Your task to perform on an android device: change alarm snooze length Image 0: 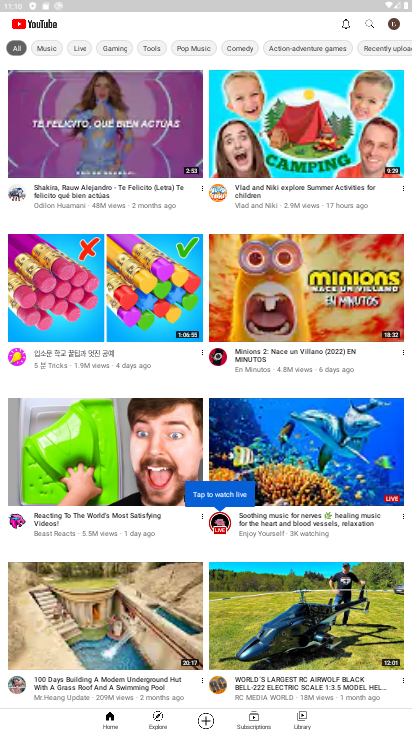
Step 0: press home button
Your task to perform on an android device: change alarm snooze length Image 1: 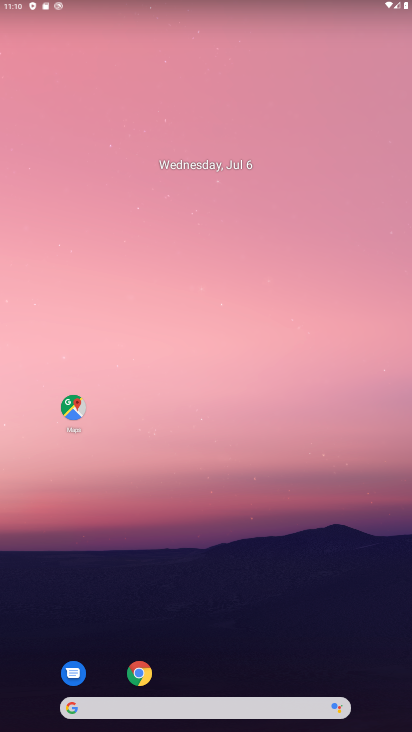
Step 1: drag from (302, 656) to (211, 457)
Your task to perform on an android device: change alarm snooze length Image 2: 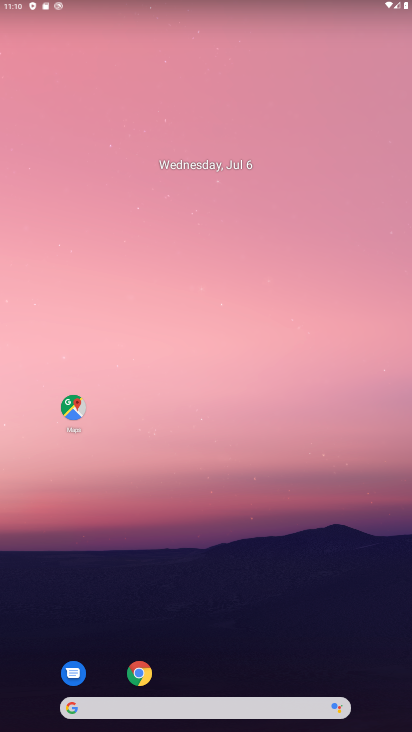
Step 2: drag from (274, 584) to (254, 321)
Your task to perform on an android device: change alarm snooze length Image 3: 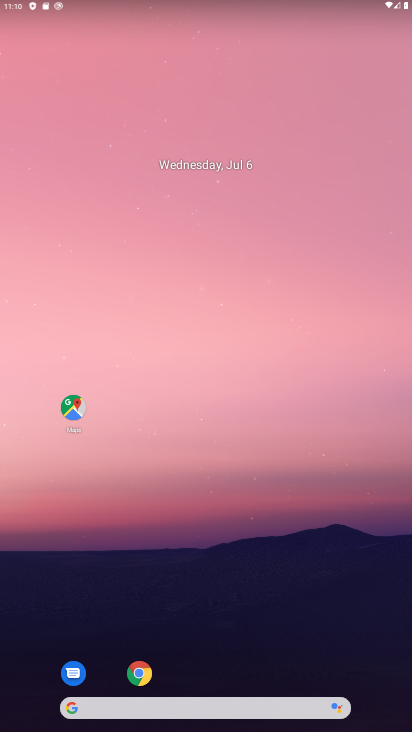
Step 3: drag from (236, 553) to (247, 120)
Your task to perform on an android device: change alarm snooze length Image 4: 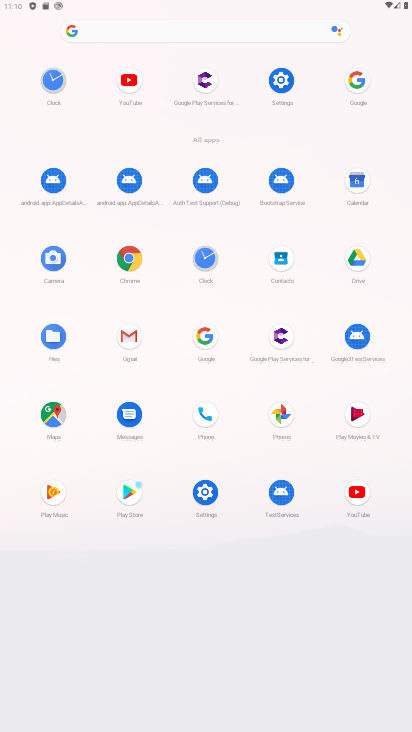
Step 4: click (206, 256)
Your task to perform on an android device: change alarm snooze length Image 5: 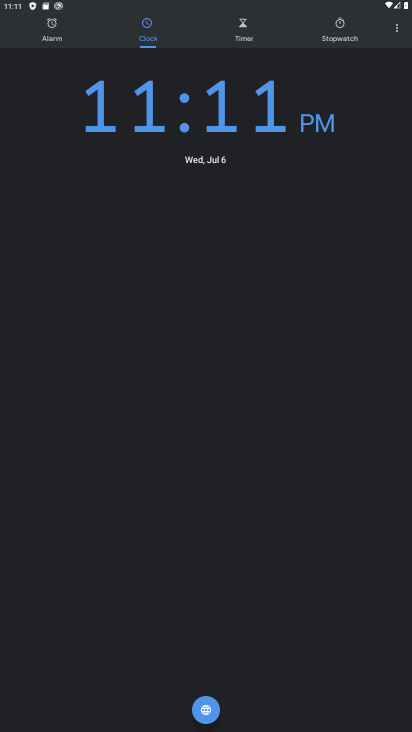
Step 5: click (397, 35)
Your task to perform on an android device: change alarm snooze length Image 6: 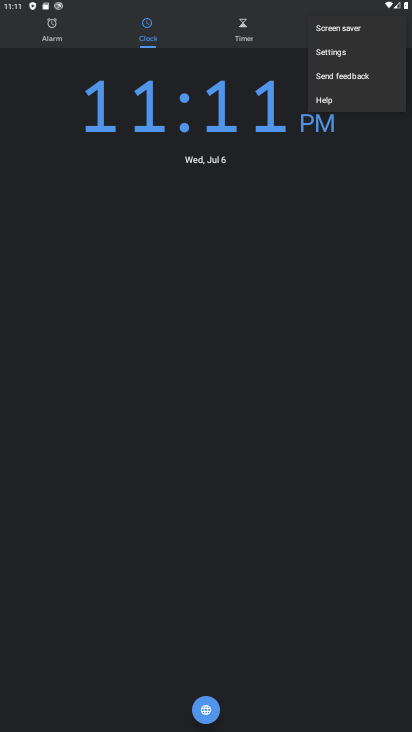
Step 6: click (342, 58)
Your task to perform on an android device: change alarm snooze length Image 7: 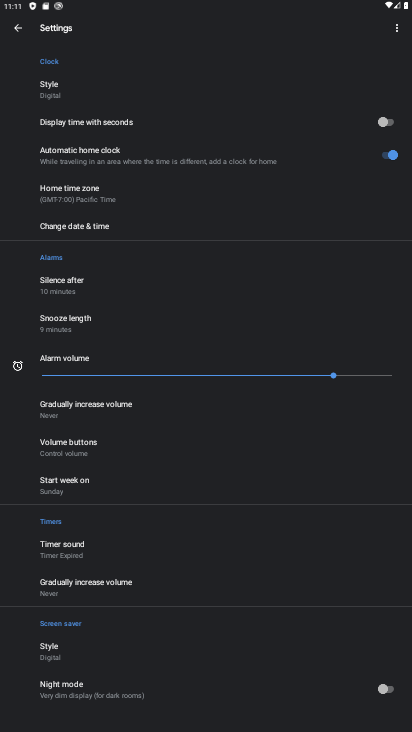
Step 7: click (75, 326)
Your task to perform on an android device: change alarm snooze length Image 8: 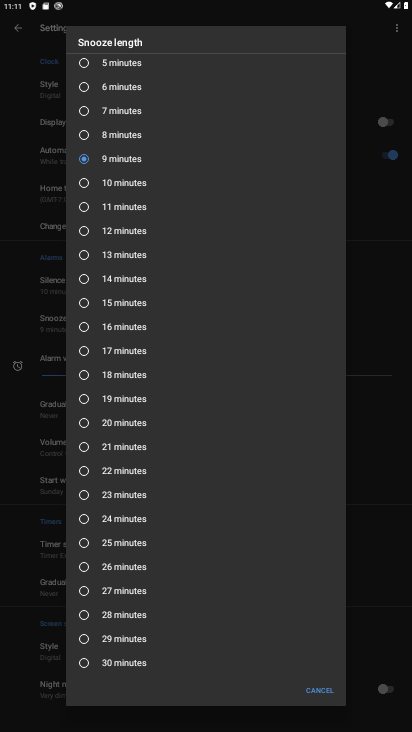
Step 8: click (113, 191)
Your task to perform on an android device: change alarm snooze length Image 9: 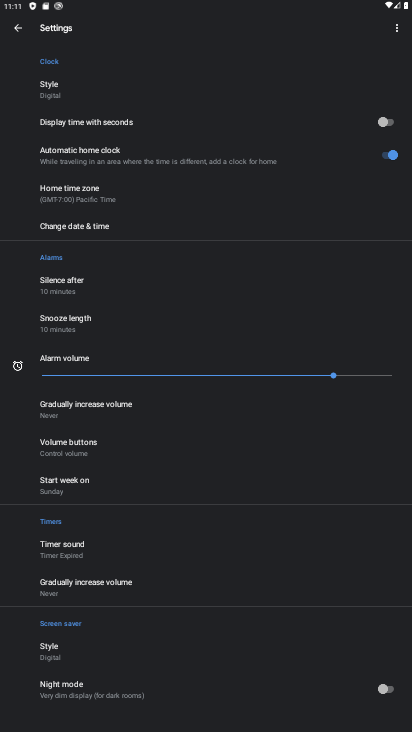
Step 9: click (98, 324)
Your task to perform on an android device: change alarm snooze length Image 10: 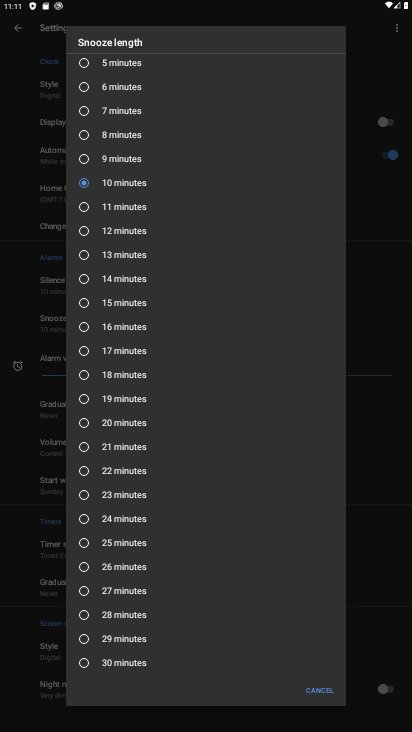
Step 10: click (102, 318)
Your task to perform on an android device: change alarm snooze length Image 11: 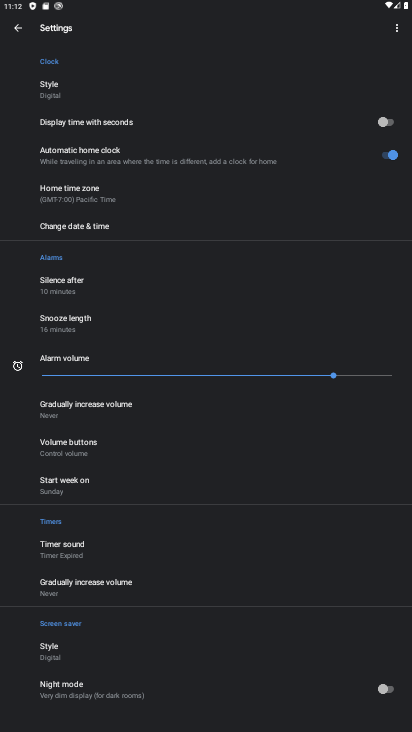
Step 11: task complete